Your task to perform on an android device: Open the calendar and show me this week's events Image 0: 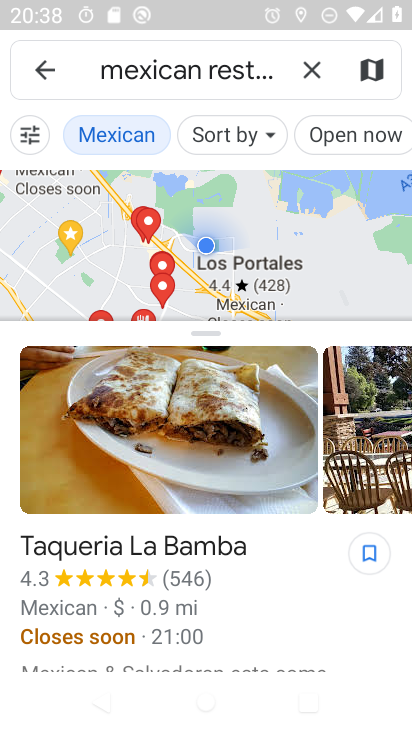
Step 0: press home button
Your task to perform on an android device: Open the calendar and show me this week's events Image 1: 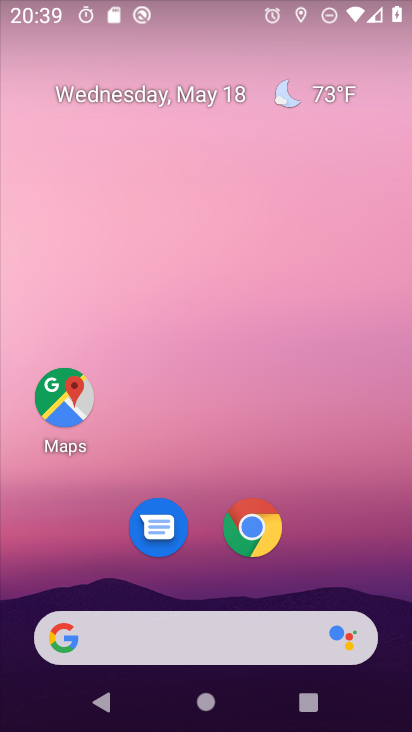
Step 1: drag from (397, 681) to (363, 91)
Your task to perform on an android device: Open the calendar and show me this week's events Image 2: 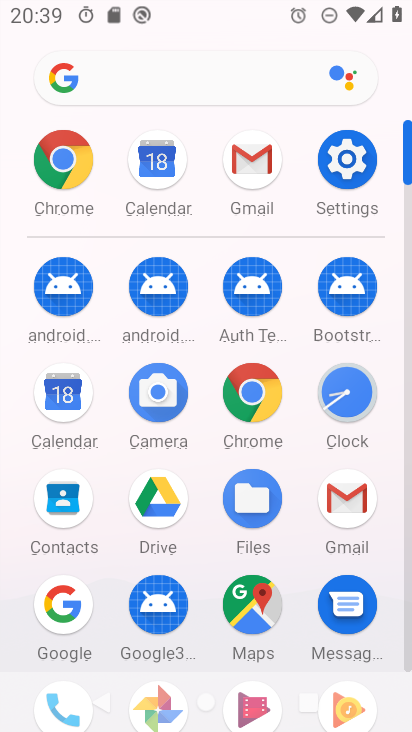
Step 2: click (60, 399)
Your task to perform on an android device: Open the calendar and show me this week's events Image 3: 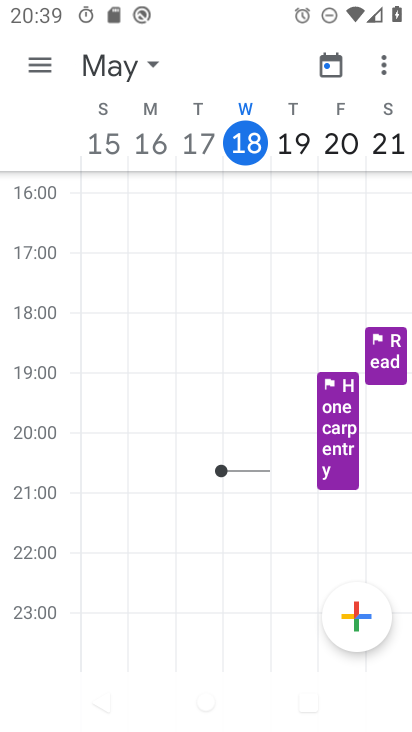
Step 3: click (41, 62)
Your task to perform on an android device: Open the calendar and show me this week's events Image 4: 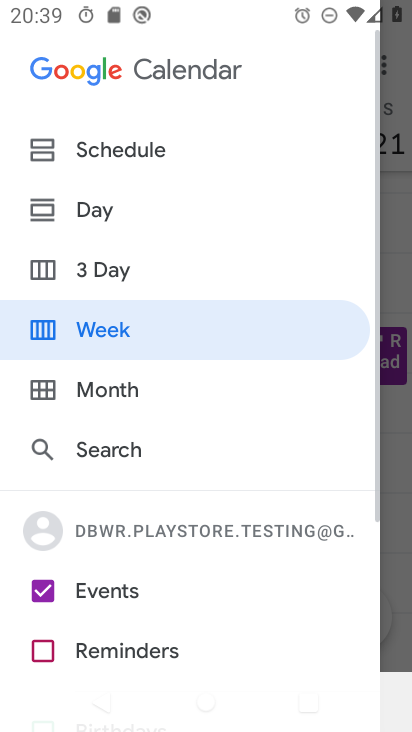
Step 4: click (96, 264)
Your task to perform on an android device: Open the calendar and show me this week's events Image 5: 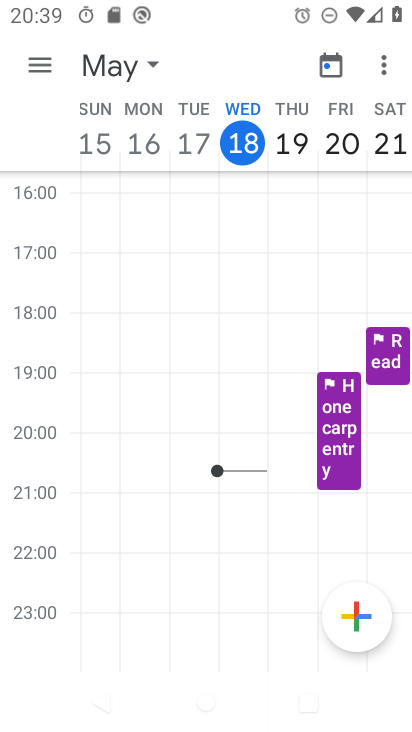
Step 5: click (97, 321)
Your task to perform on an android device: Open the calendar and show me this week's events Image 6: 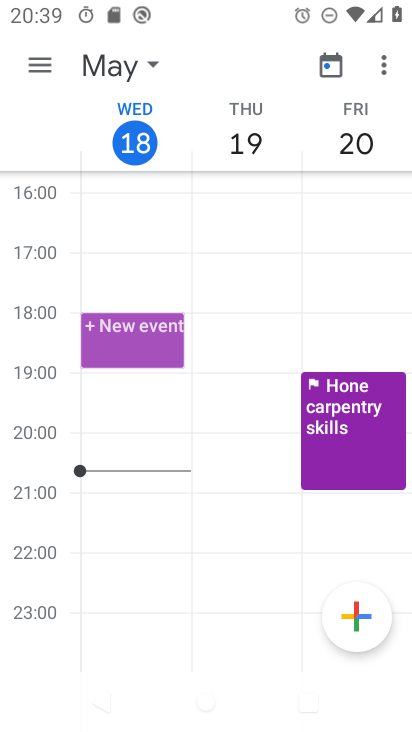
Step 6: click (40, 62)
Your task to perform on an android device: Open the calendar and show me this week's events Image 7: 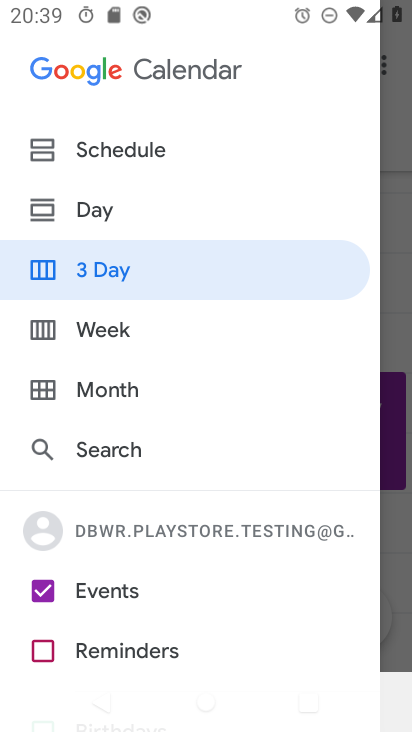
Step 7: click (99, 328)
Your task to perform on an android device: Open the calendar and show me this week's events Image 8: 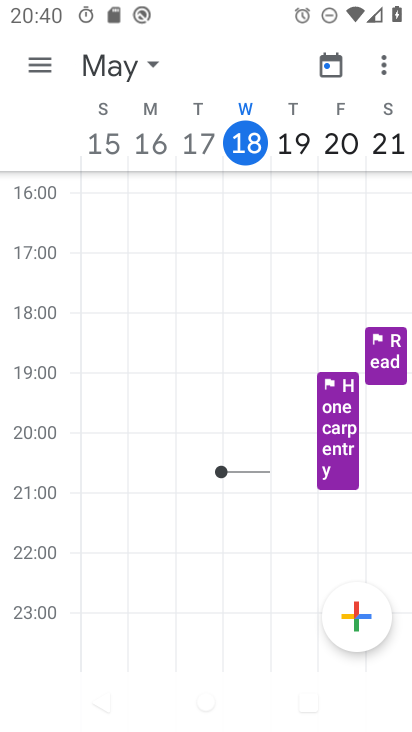
Step 8: task complete